Your task to perform on an android device: Show me popular videos on Youtube Image 0: 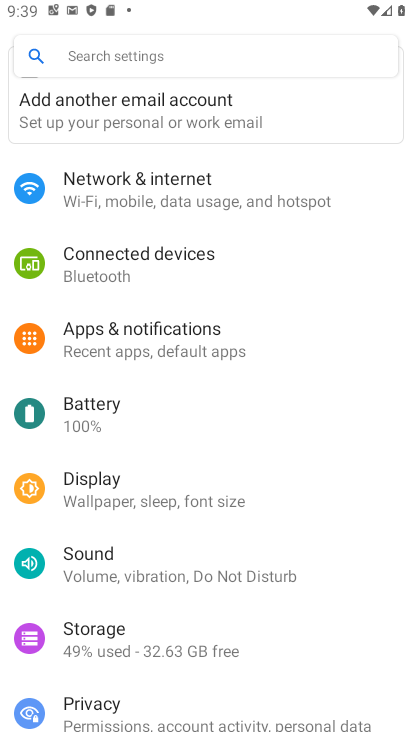
Step 0: press home button
Your task to perform on an android device: Show me popular videos on Youtube Image 1: 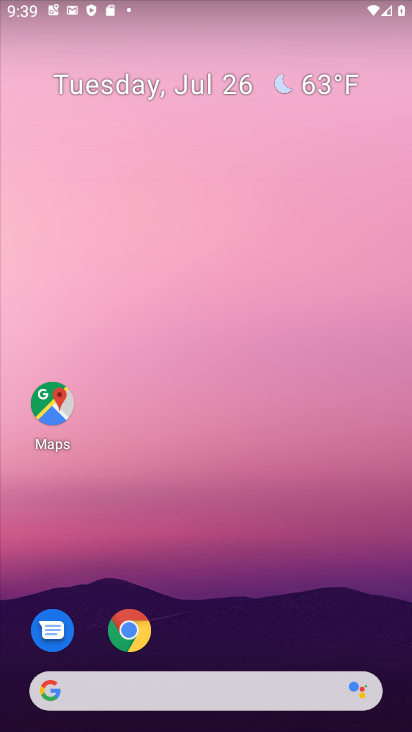
Step 1: drag from (222, 645) to (60, 559)
Your task to perform on an android device: Show me popular videos on Youtube Image 2: 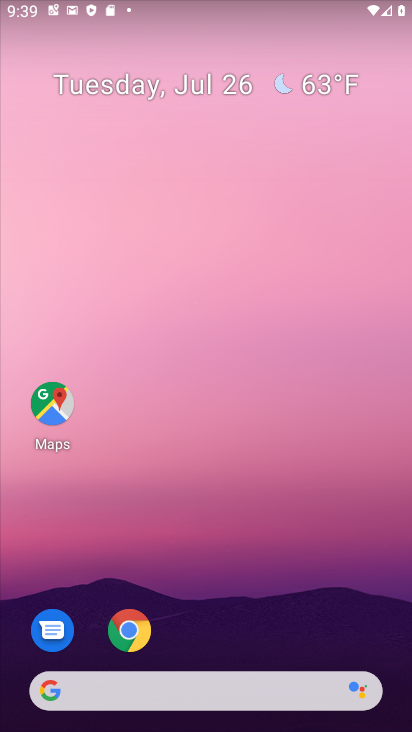
Step 2: drag from (283, 634) to (118, 25)
Your task to perform on an android device: Show me popular videos on Youtube Image 3: 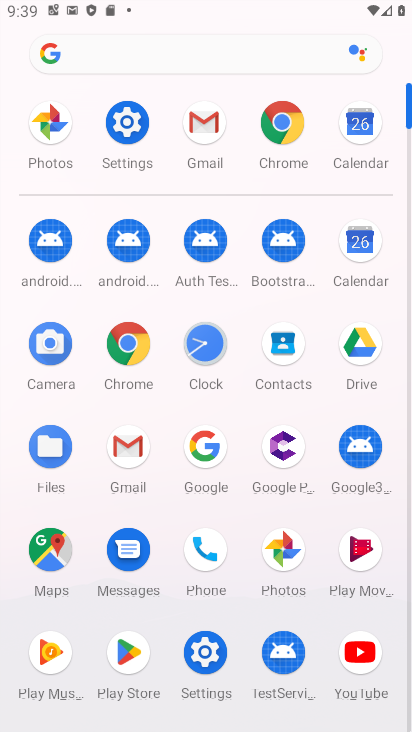
Step 3: click (353, 651)
Your task to perform on an android device: Show me popular videos on Youtube Image 4: 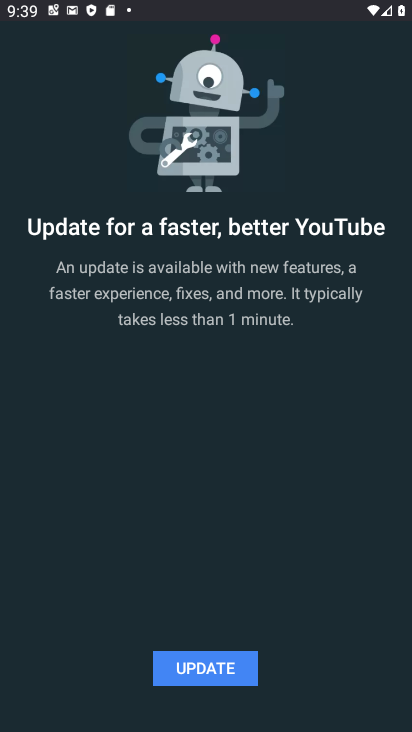
Step 4: click (209, 662)
Your task to perform on an android device: Show me popular videos on Youtube Image 5: 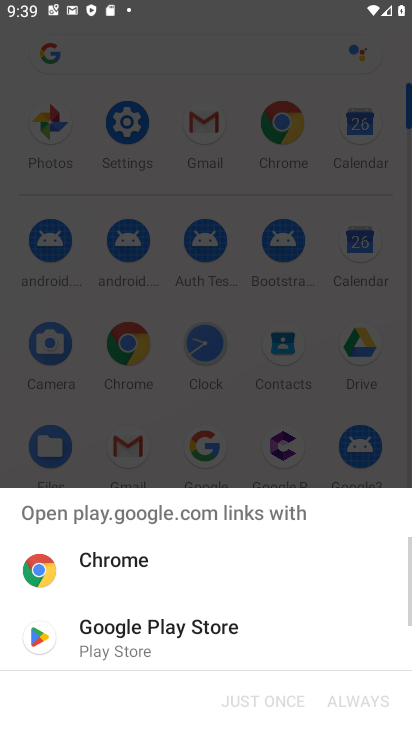
Step 5: click (85, 631)
Your task to perform on an android device: Show me popular videos on Youtube Image 6: 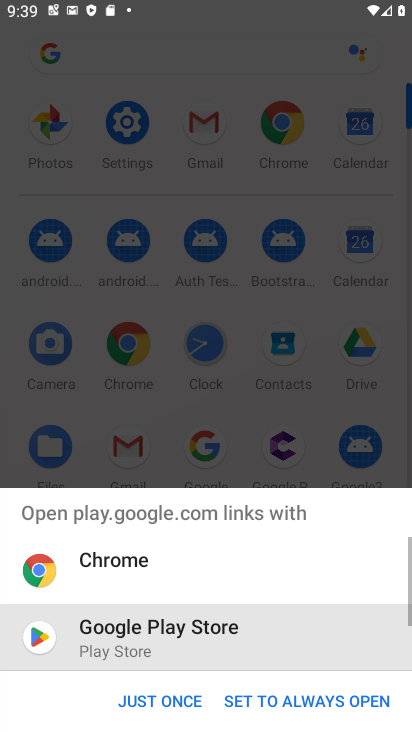
Step 6: click (150, 699)
Your task to perform on an android device: Show me popular videos on Youtube Image 7: 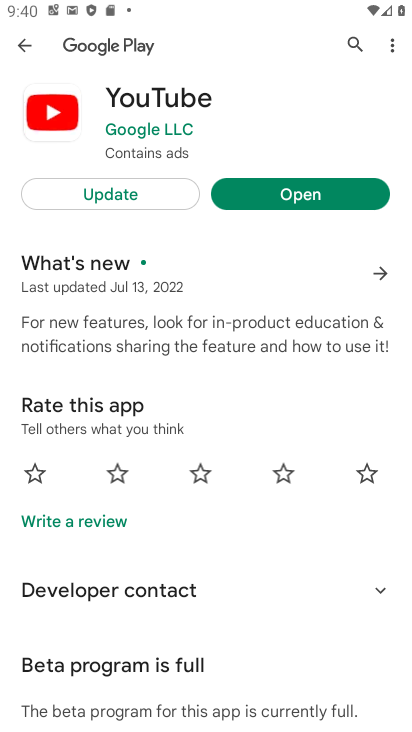
Step 7: click (111, 197)
Your task to perform on an android device: Show me popular videos on Youtube Image 8: 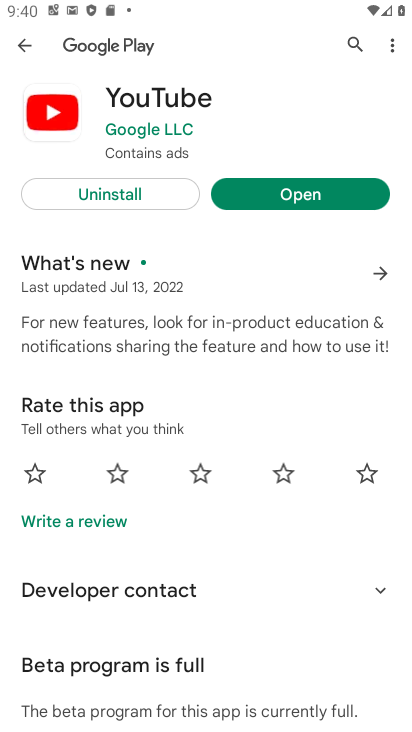
Step 8: click (303, 196)
Your task to perform on an android device: Show me popular videos on Youtube Image 9: 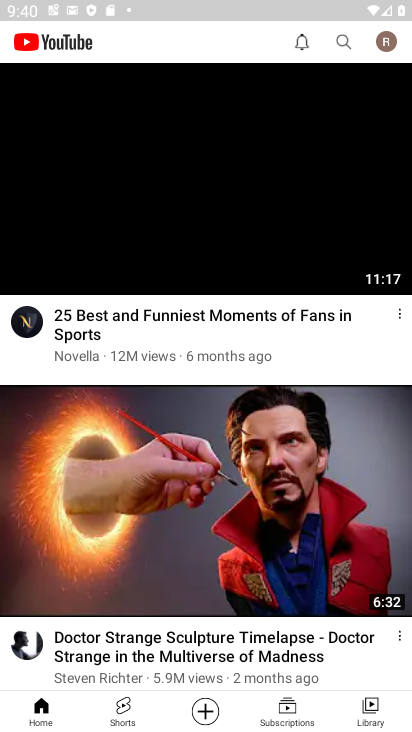
Step 9: drag from (148, 527) to (186, 183)
Your task to perform on an android device: Show me popular videos on Youtube Image 10: 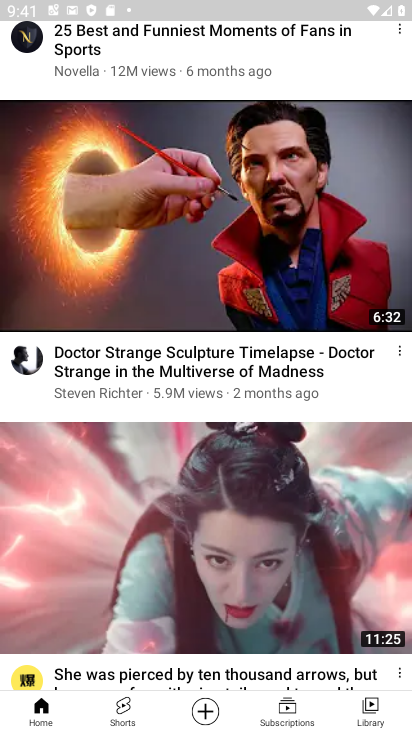
Step 10: drag from (53, 87) to (51, 607)
Your task to perform on an android device: Show me popular videos on Youtube Image 11: 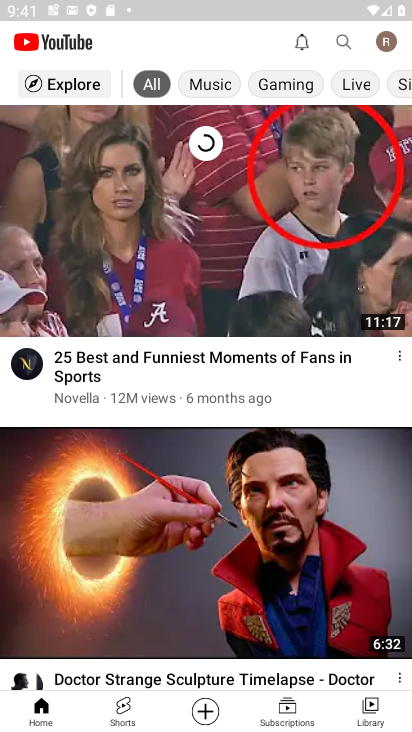
Step 11: click (33, 78)
Your task to perform on an android device: Show me popular videos on Youtube Image 12: 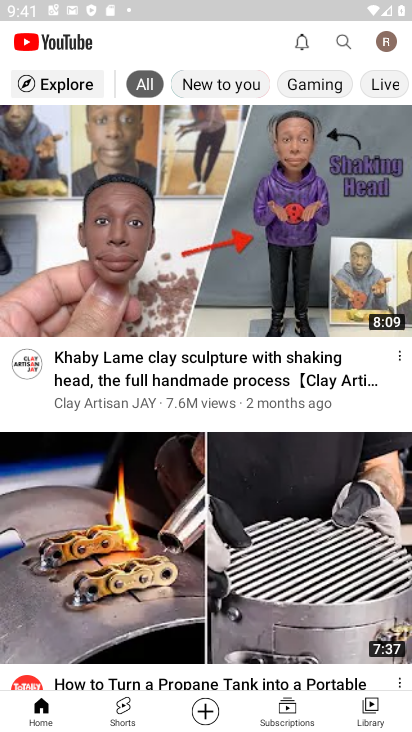
Step 12: click (54, 78)
Your task to perform on an android device: Show me popular videos on Youtube Image 13: 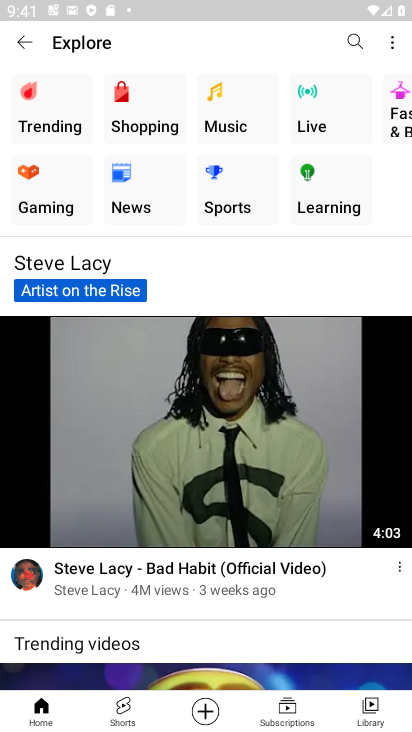
Step 13: click (36, 89)
Your task to perform on an android device: Show me popular videos on Youtube Image 14: 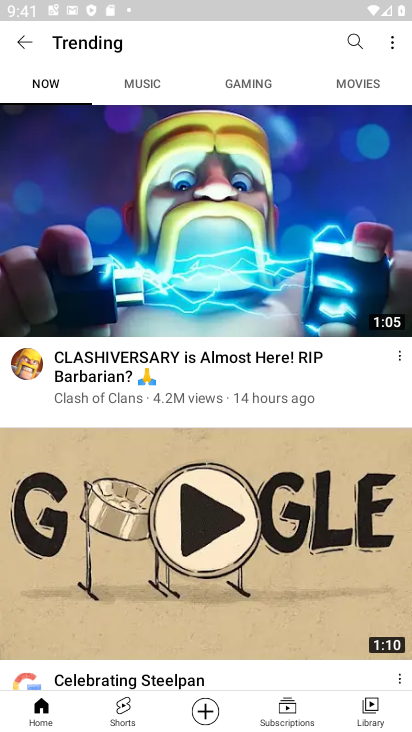
Step 14: task complete